Your task to perform on an android device: Search for "logitech g910" on newegg.com, select the first entry, add it to the cart, then select checkout. Image 0: 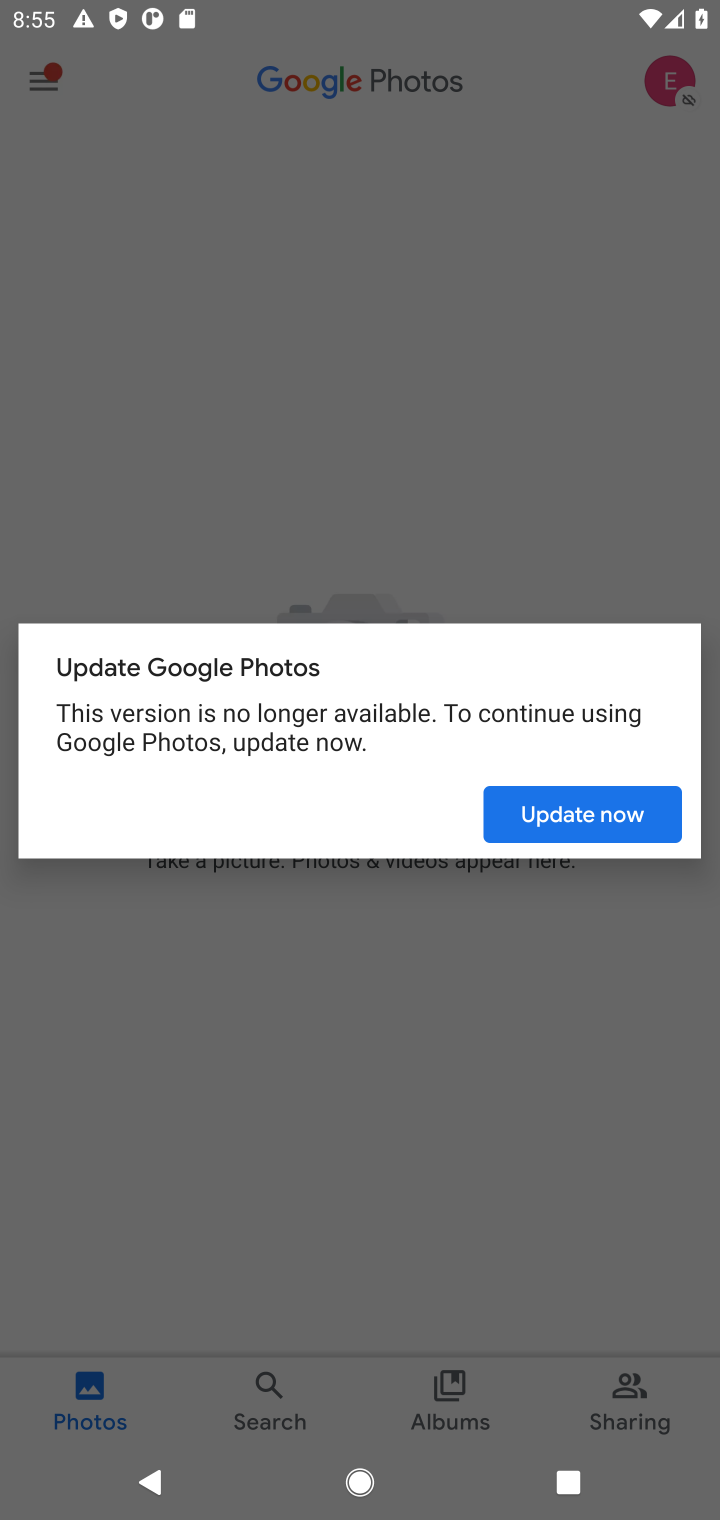
Step 0: press home button
Your task to perform on an android device: Search for "logitech g910" on newegg.com, select the first entry, add it to the cart, then select checkout. Image 1: 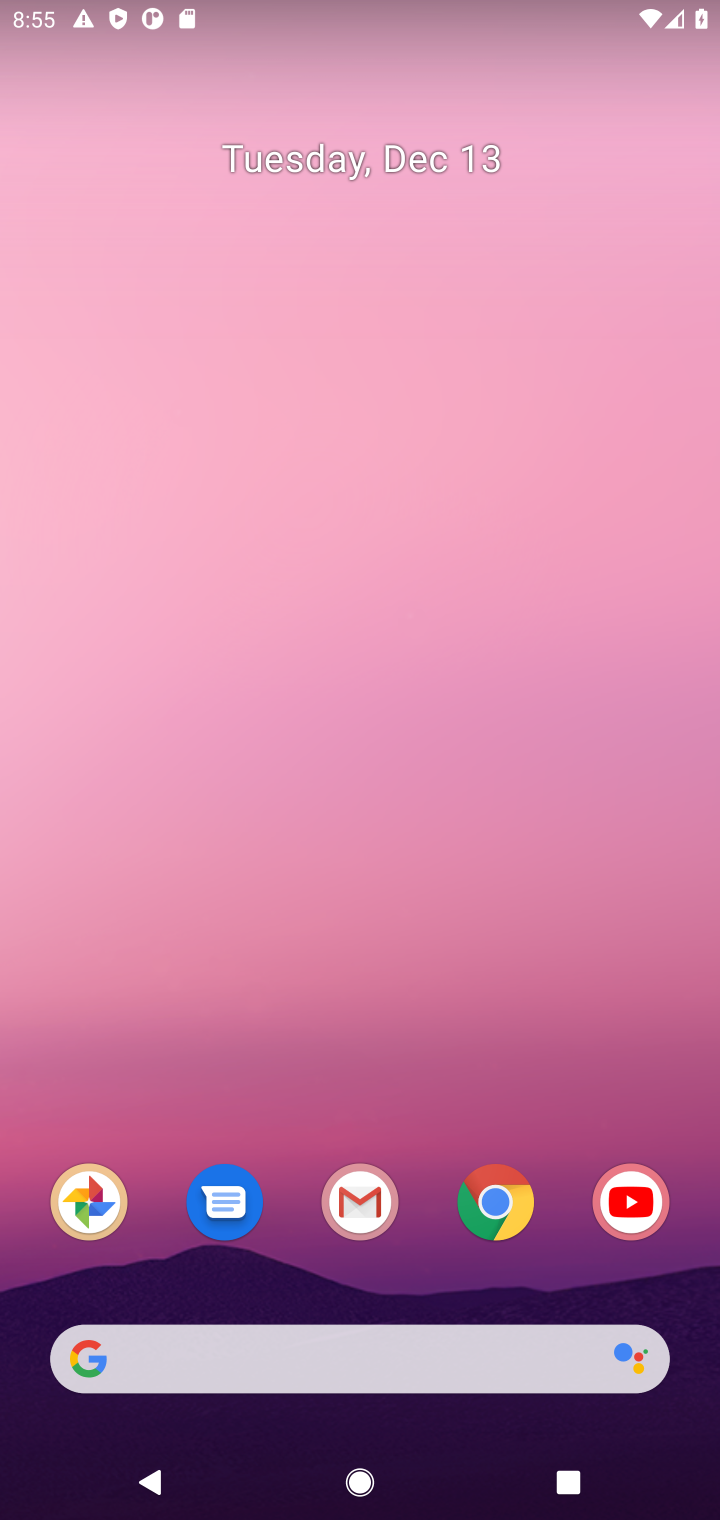
Step 1: click (494, 1213)
Your task to perform on an android device: Search for "logitech g910" on newegg.com, select the first entry, add it to the cart, then select checkout. Image 2: 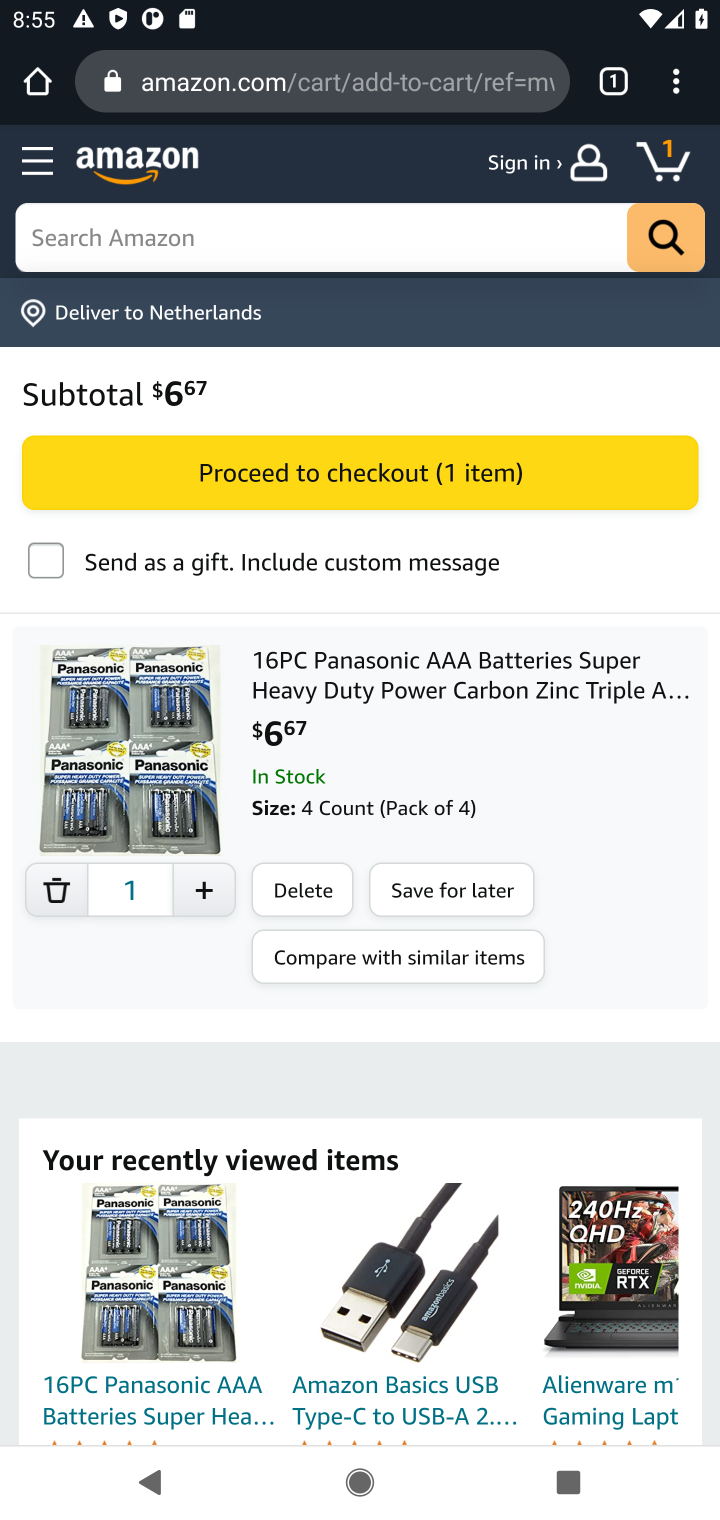
Step 2: click (275, 93)
Your task to perform on an android device: Search for "logitech g910" on newegg.com, select the first entry, add it to the cart, then select checkout. Image 3: 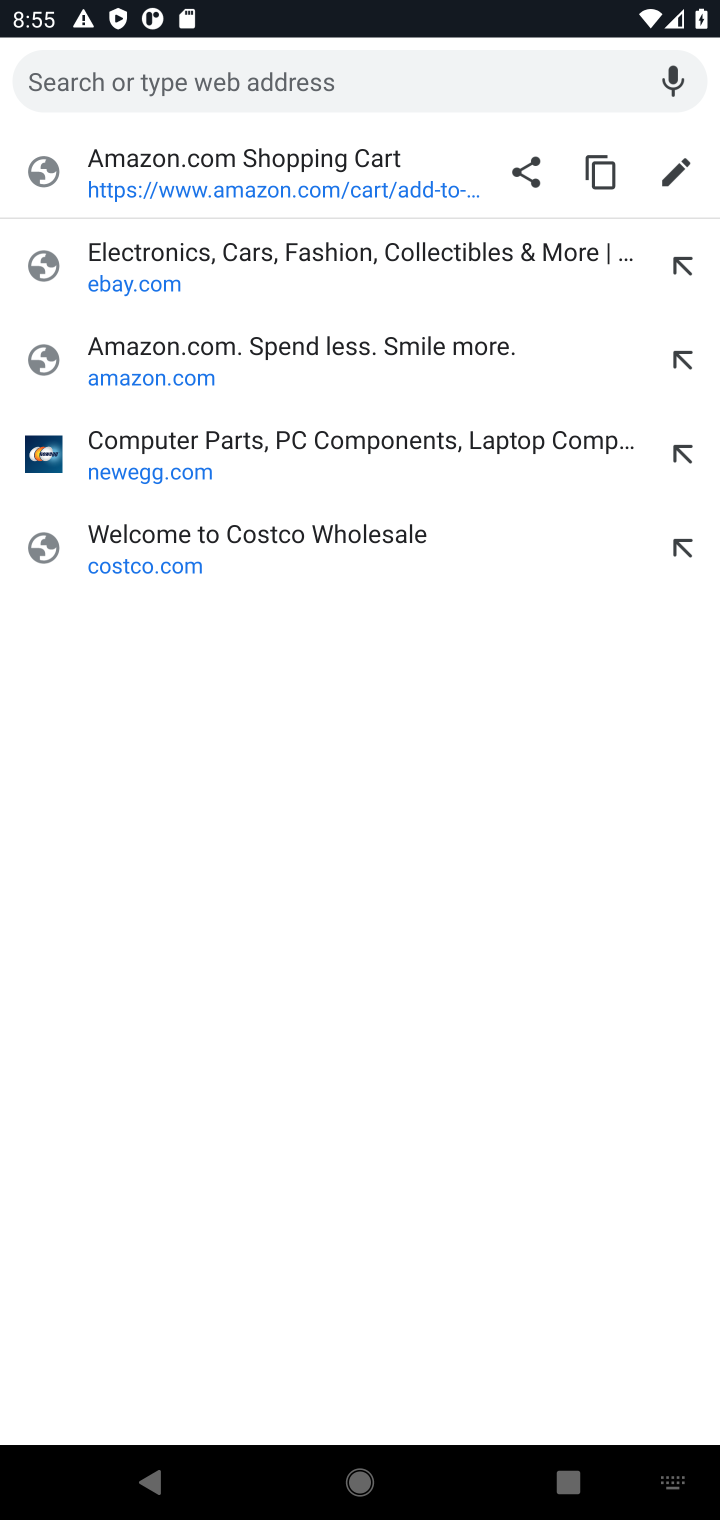
Step 3: click (136, 452)
Your task to perform on an android device: Search for "logitech g910" on newegg.com, select the first entry, add it to the cart, then select checkout. Image 4: 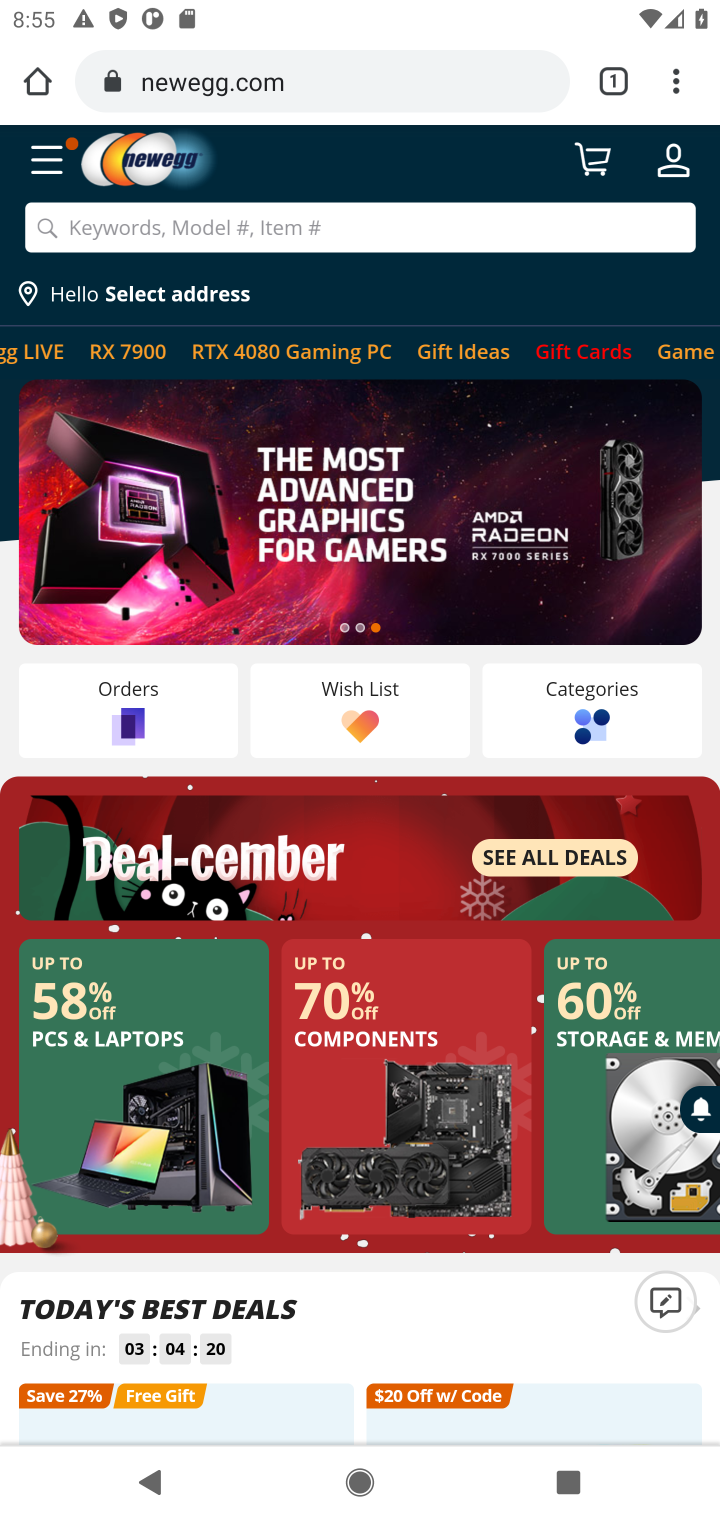
Step 4: click (103, 232)
Your task to perform on an android device: Search for "logitech g910" on newegg.com, select the first entry, add it to the cart, then select checkout. Image 5: 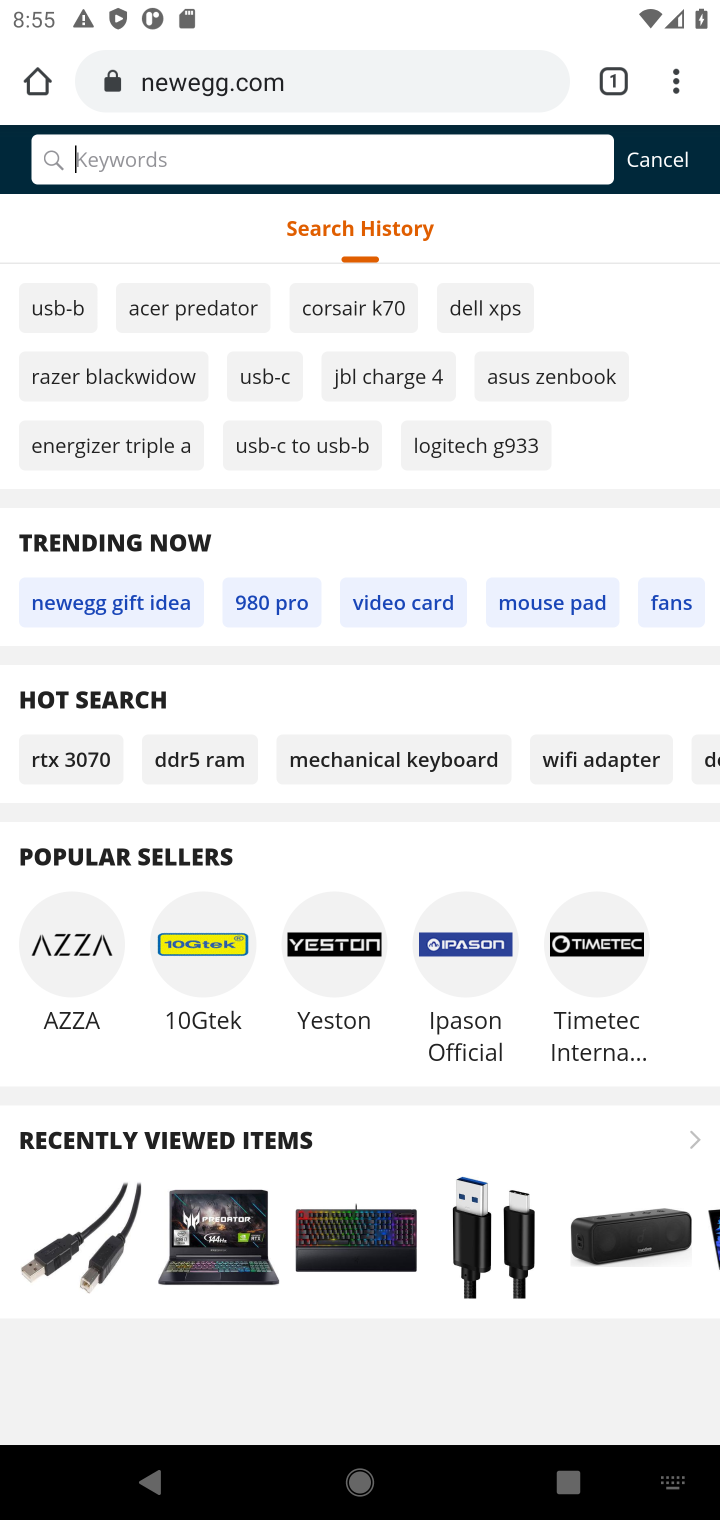
Step 5: type "logitech g910"
Your task to perform on an android device: Search for "logitech g910" on newegg.com, select the first entry, add it to the cart, then select checkout. Image 6: 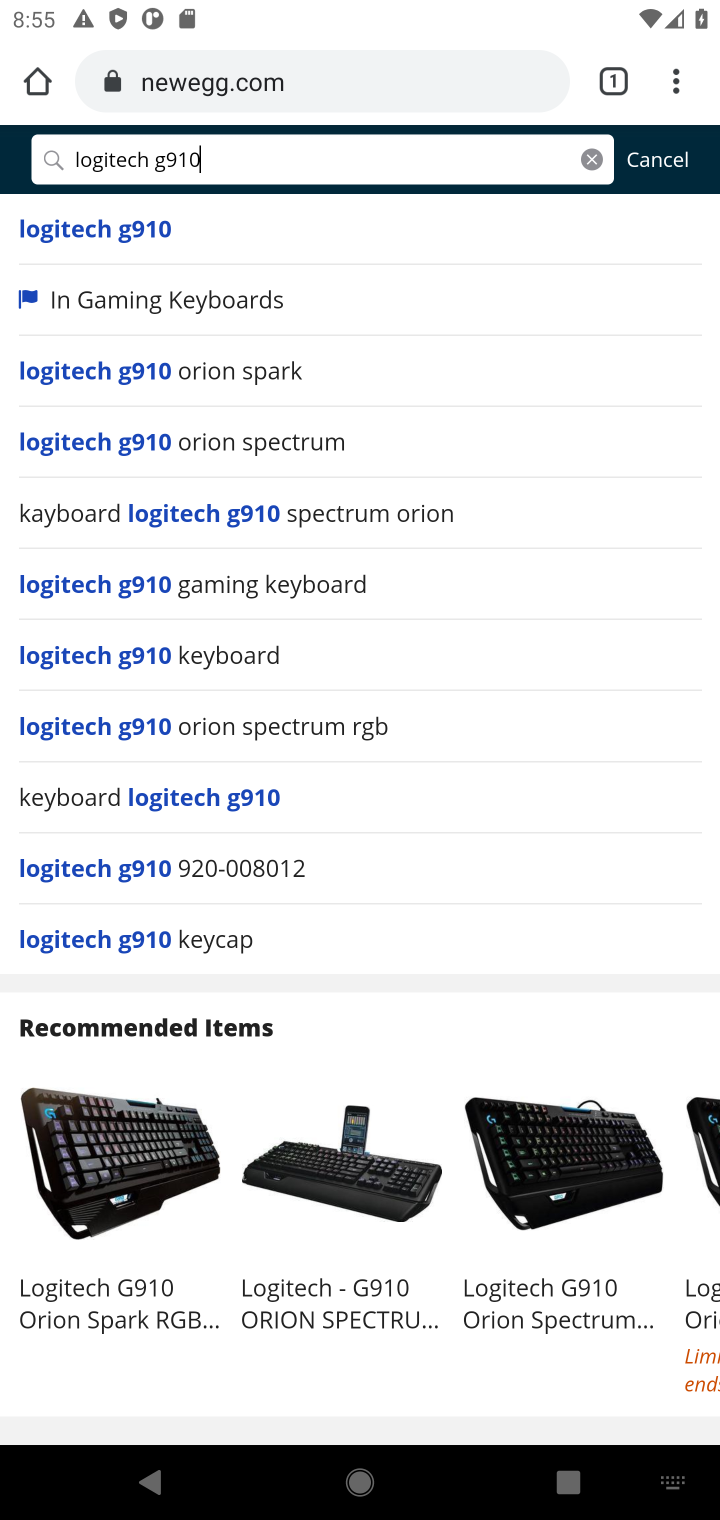
Step 6: click (124, 242)
Your task to perform on an android device: Search for "logitech g910" on newegg.com, select the first entry, add it to the cart, then select checkout. Image 7: 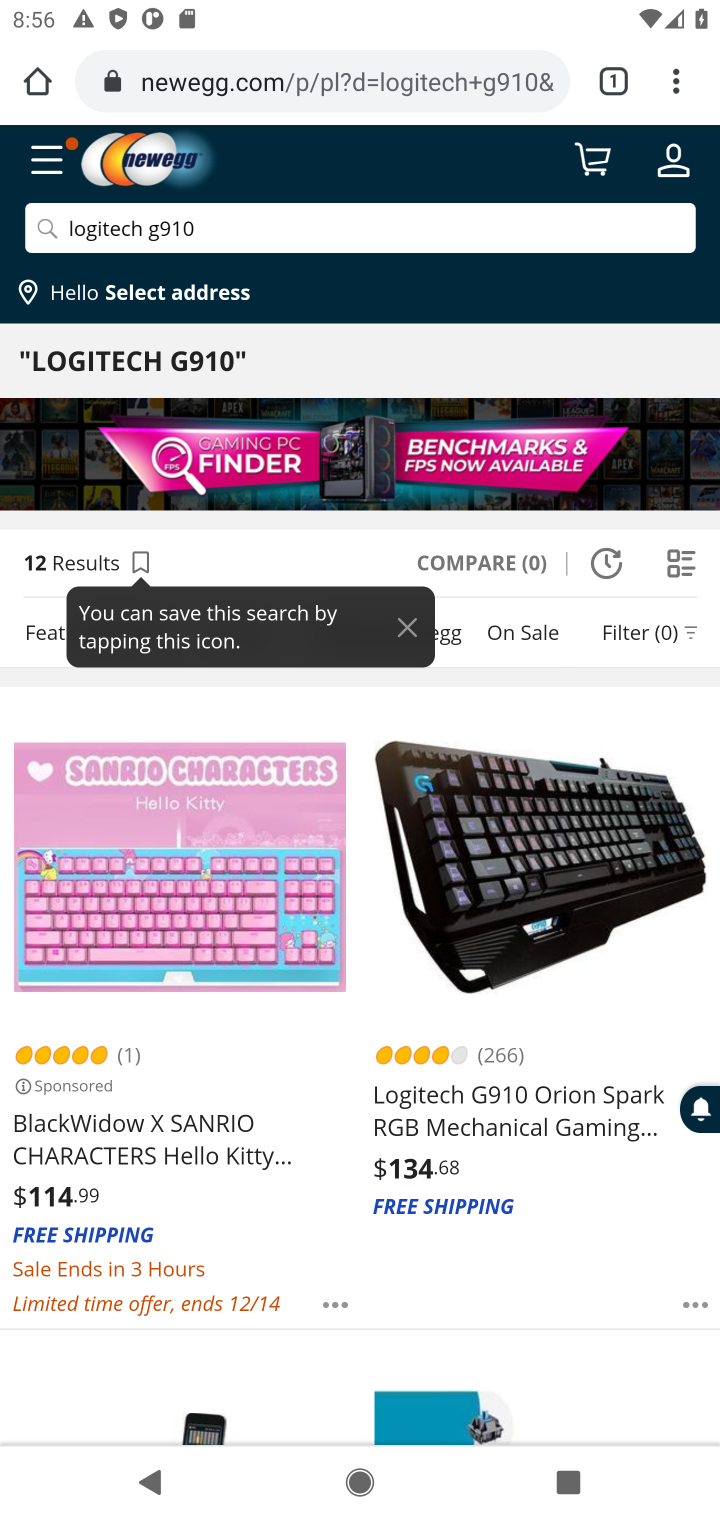
Step 7: task complete